Your task to perform on an android device: Open settings Image 0: 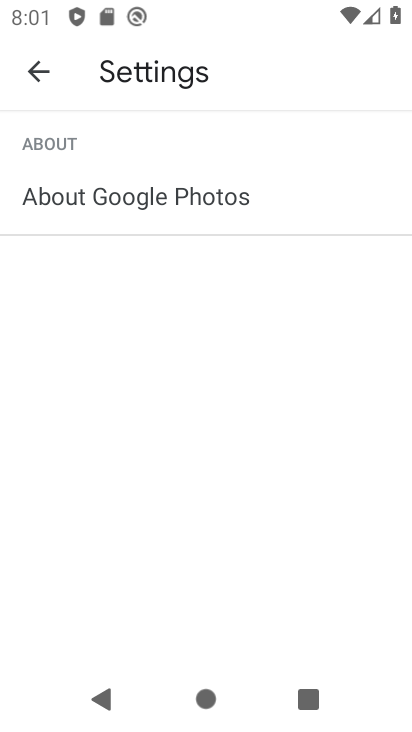
Step 0: press home button
Your task to perform on an android device: Open settings Image 1: 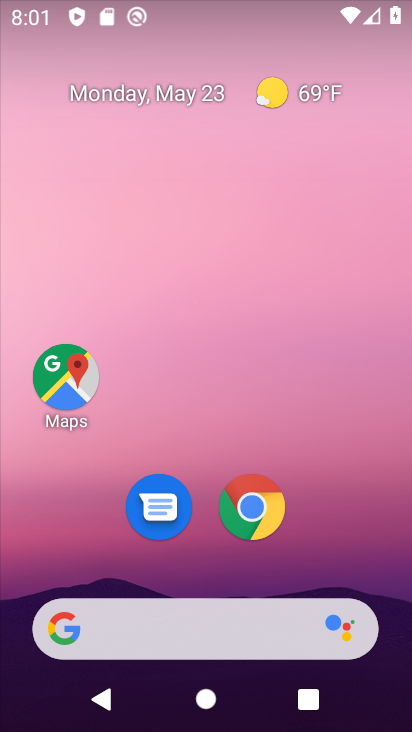
Step 1: drag from (348, 593) to (335, 5)
Your task to perform on an android device: Open settings Image 2: 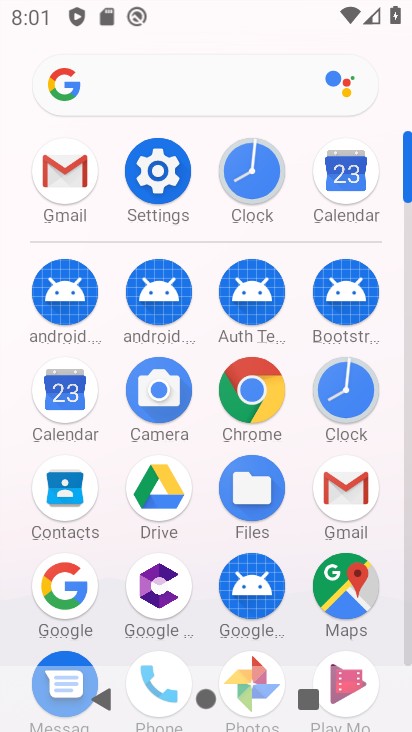
Step 2: click (156, 169)
Your task to perform on an android device: Open settings Image 3: 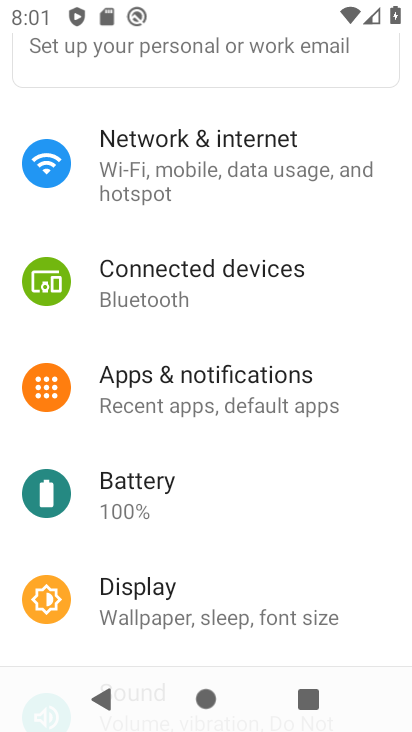
Step 3: task complete